Your task to perform on an android device: Open Maps and search for coffee Image 0: 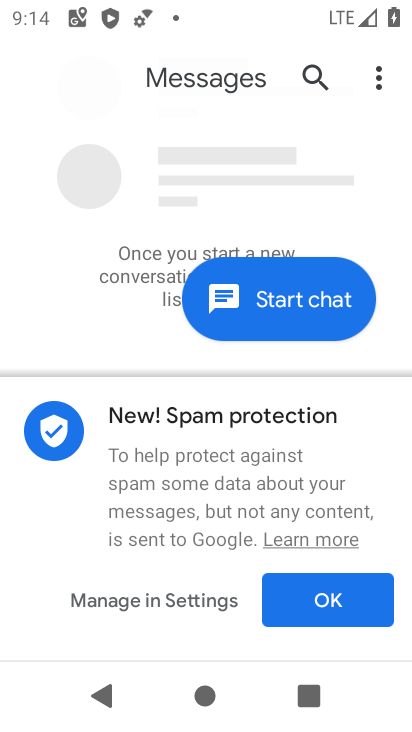
Step 0: press home button
Your task to perform on an android device: Open Maps and search for coffee Image 1: 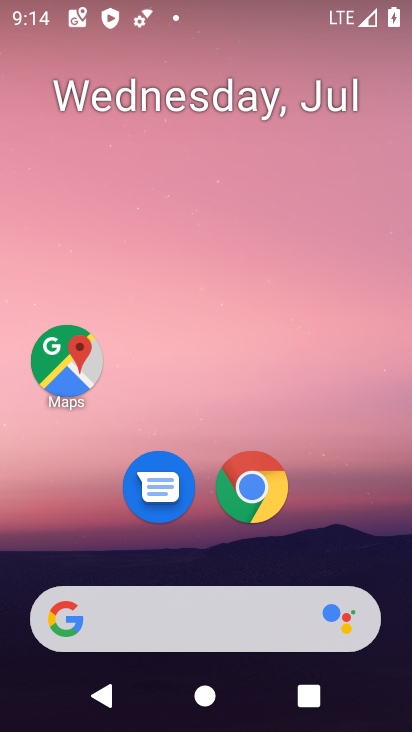
Step 1: drag from (223, 581) to (126, 190)
Your task to perform on an android device: Open Maps and search for coffee Image 2: 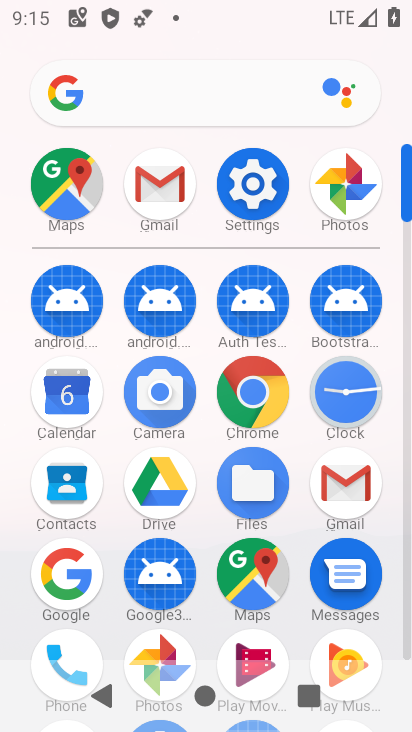
Step 2: click (83, 181)
Your task to perform on an android device: Open Maps and search for coffee Image 3: 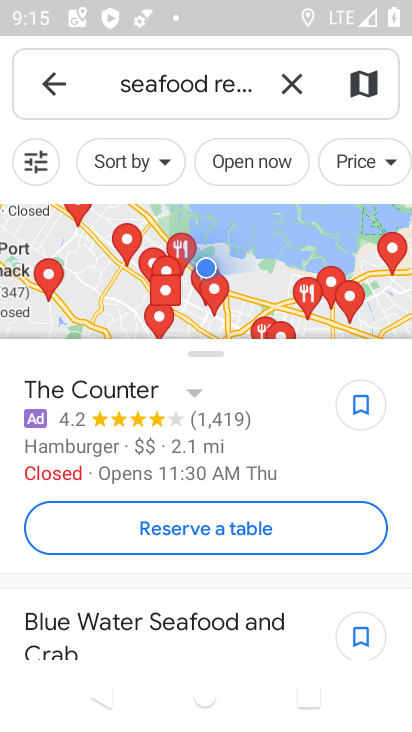
Step 3: click (55, 80)
Your task to perform on an android device: Open Maps and search for coffee Image 4: 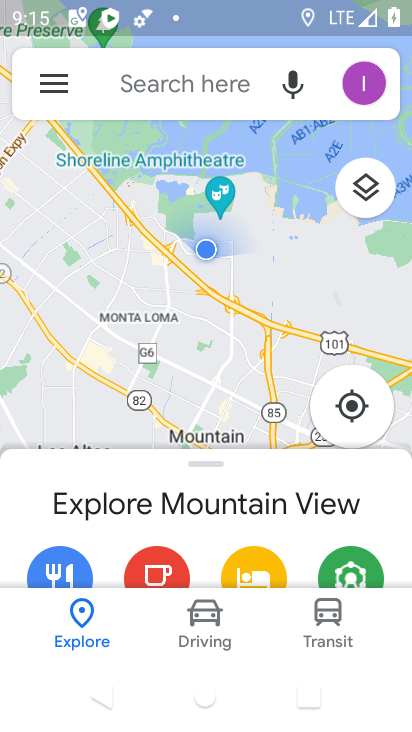
Step 4: click (149, 88)
Your task to perform on an android device: Open Maps and search for coffee Image 5: 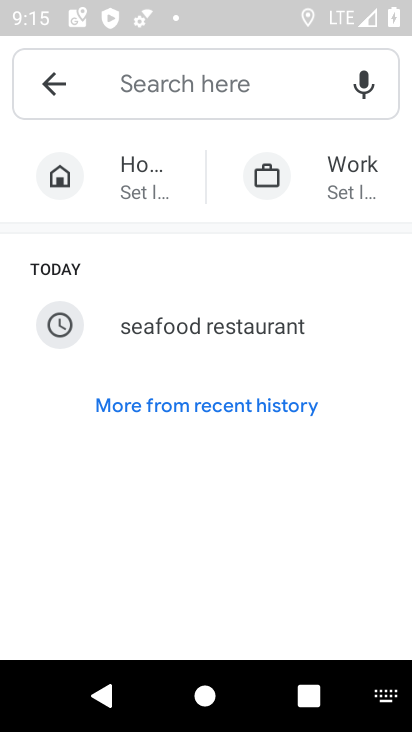
Step 5: type "coffee"
Your task to perform on an android device: Open Maps and search for coffee Image 6: 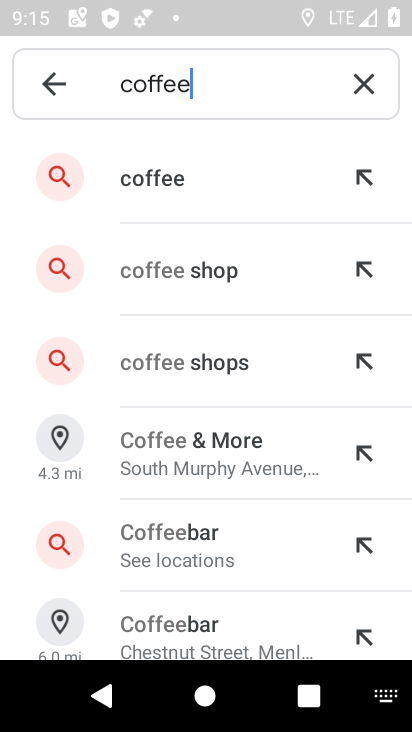
Step 6: click (161, 206)
Your task to perform on an android device: Open Maps and search for coffee Image 7: 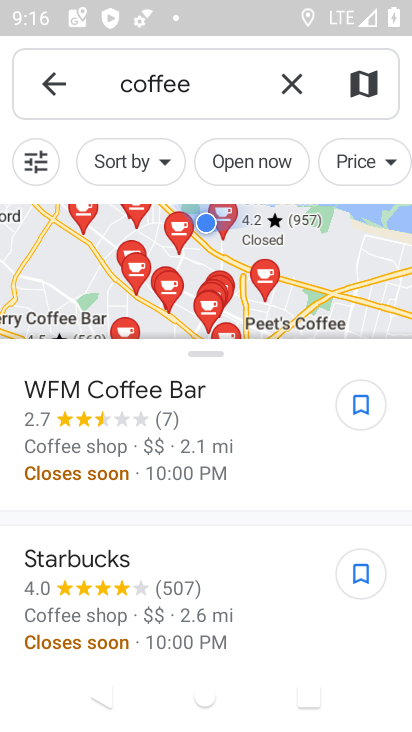
Step 7: task complete